Your task to perform on an android device: allow notifications from all sites in the chrome app Image 0: 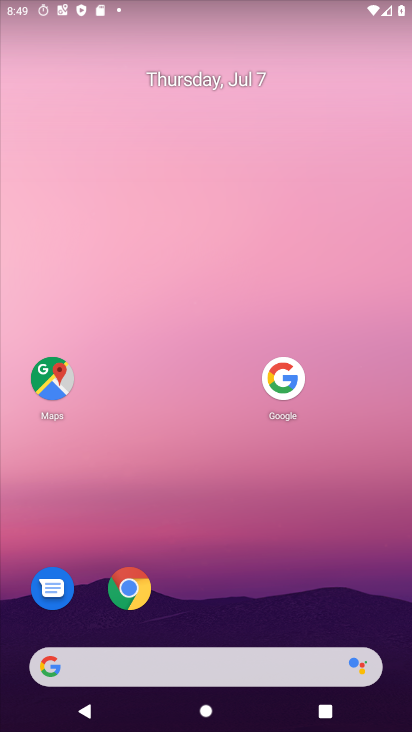
Step 0: click (136, 590)
Your task to perform on an android device: allow notifications from all sites in the chrome app Image 1: 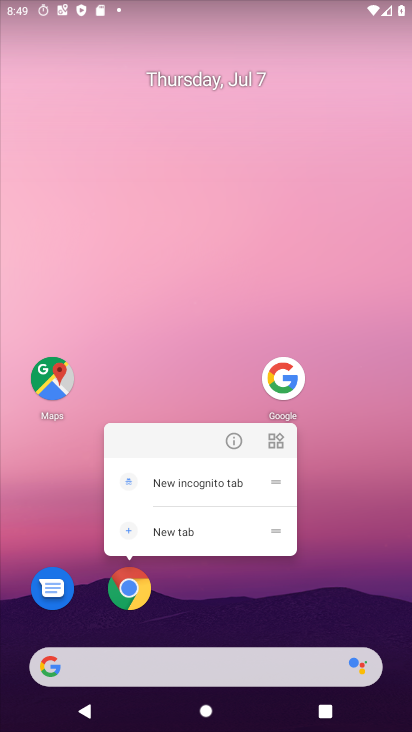
Step 1: click (141, 593)
Your task to perform on an android device: allow notifications from all sites in the chrome app Image 2: 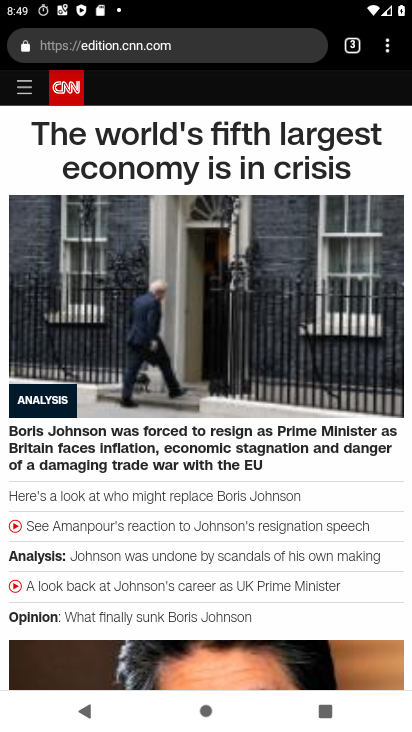
Step 2: drag from (388, 45) to (262, 512)
Your task to perform on an android device: allow notifications from all sites in the chrome app Image 3: 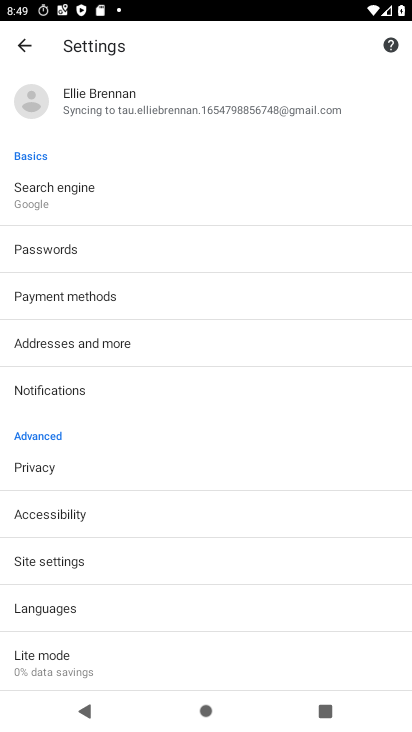
Step 3: click (85, 562)
Your task to perform on an android device: allow notifications from all sites in the chrome app Image 4: 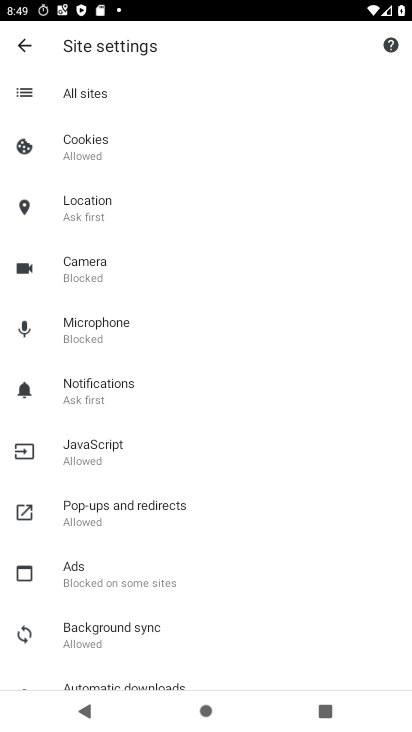
Step 4: click (124, 385)
Your task to perform on an android device: allow notifications from all sites in the chrome app Image 5: 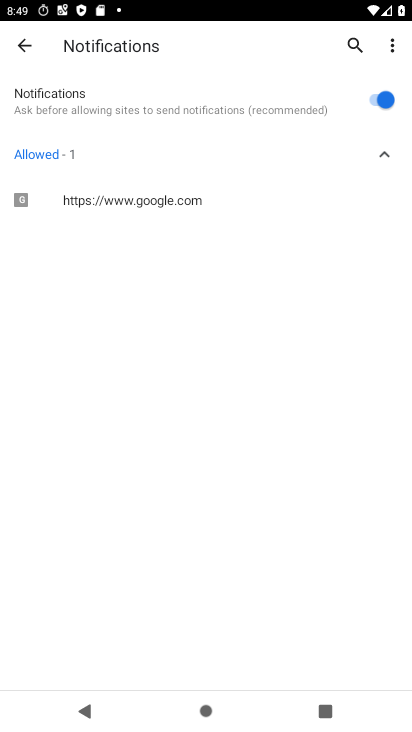
Step 5: task complete